Your task to perform on an android device: find which apps use the phone's location Image 0: 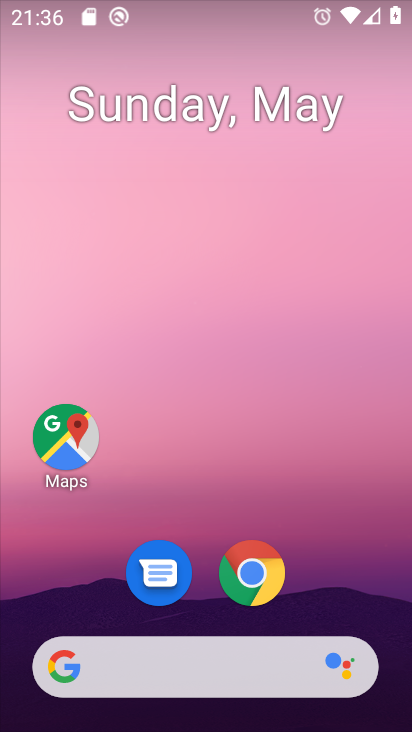
Step 0: drag from (233, 447) to (215, 1)
Your task to perform on an android device: find which apps use the phone's location Image 1: 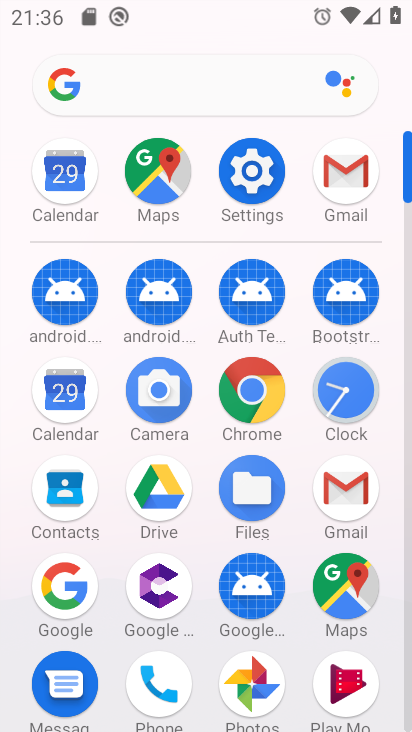
Step 1: click (251, 170)
Your task to perform on an android device: find which apps use the phone's location Image 2: 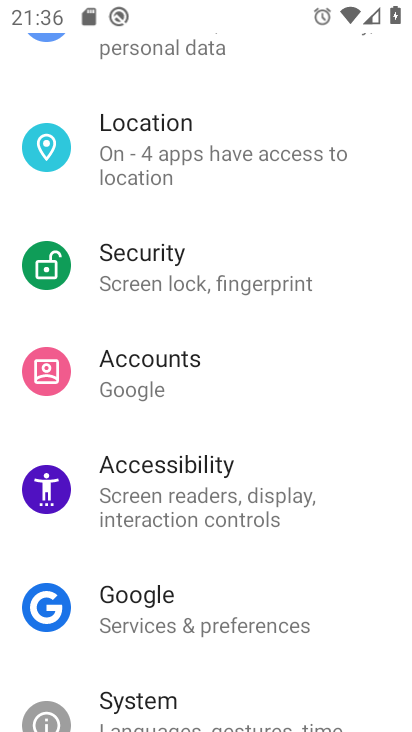
Step 2: click (279, 161)
Your task to perform on an android device: find which apps use the phone's location Image 3: 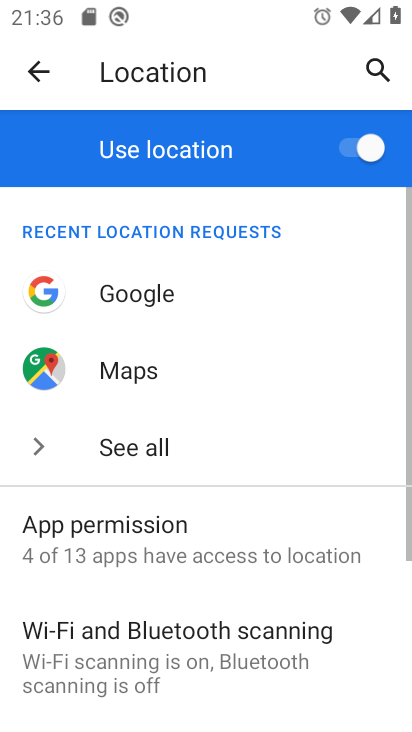
Step 3: click (115, 538)
Your task to perform on an android device: find which apps use the phone's location Image 4: 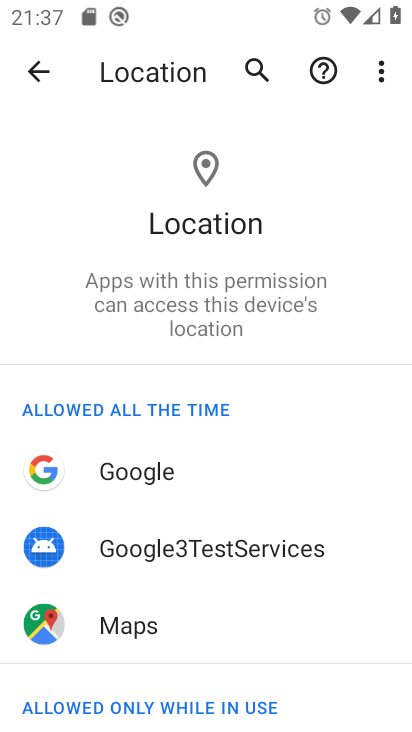
Step 4: task complete